Your task to perform on an android device: When is my next meeting? Image 0: 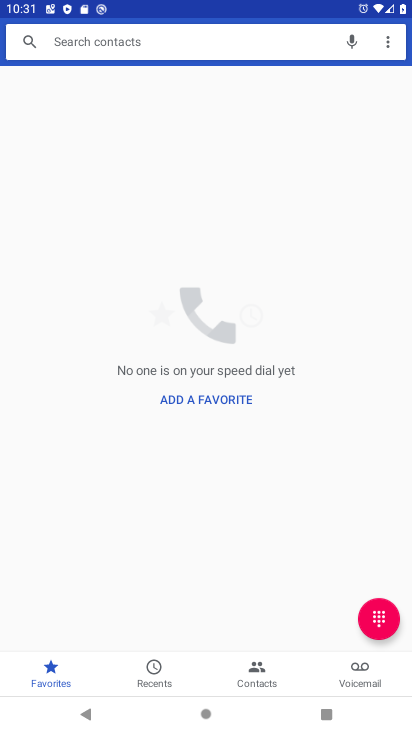
Step 0: press home button
Your task to perform on an android device: When is my next meeting? Image 1: 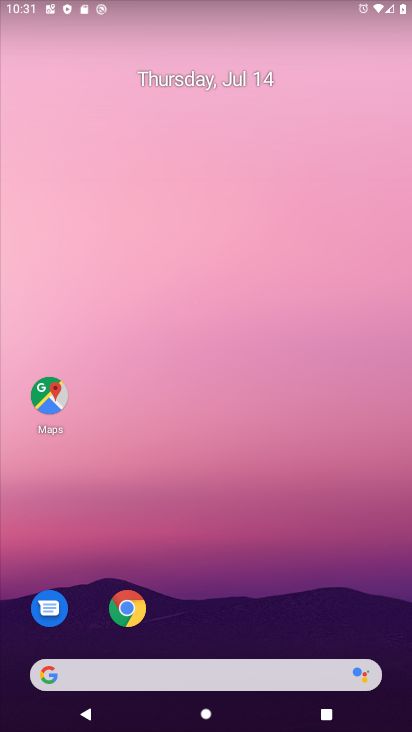
Step 1: drag from (227, 713) to (231, 214)
Your task to perform on an android device: When is my next meeting? Image 2: 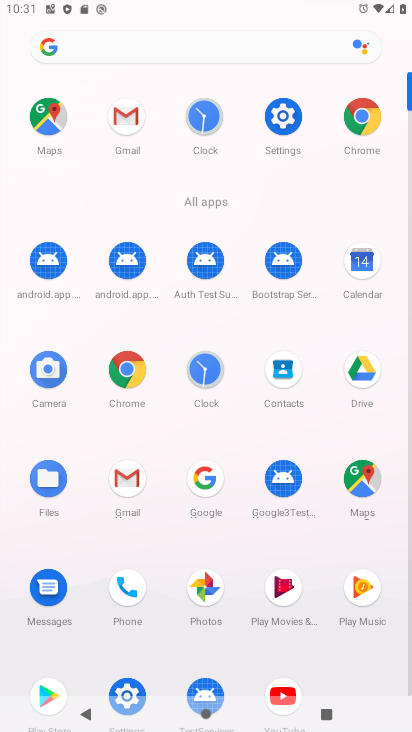
Step 2: click (367, 261)
Your task to perform on an android device: When is my next meeting? Image 3: 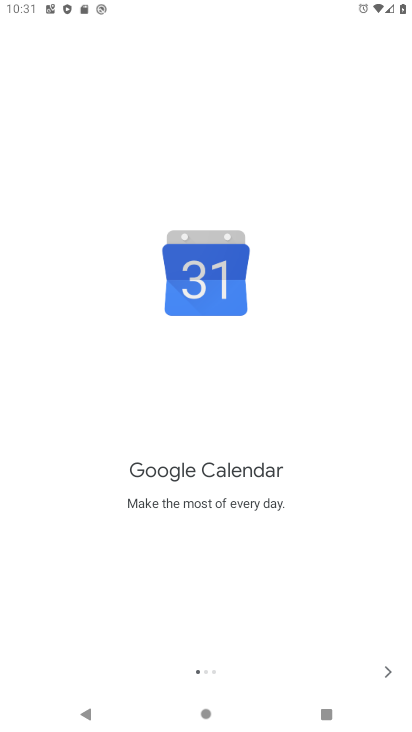
Step 3: click (386, 671)
Your task to perform on an android device: When is my next meeting? Image 4: 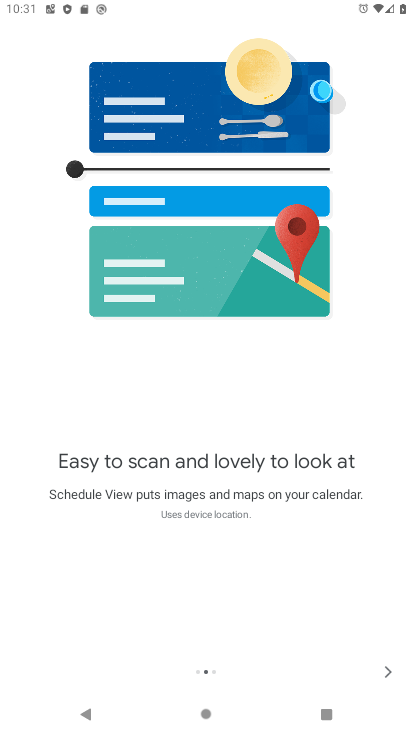
Step 4: click (386, 671)
Your task to perform on an android device: When is my next meeting? Image 5: 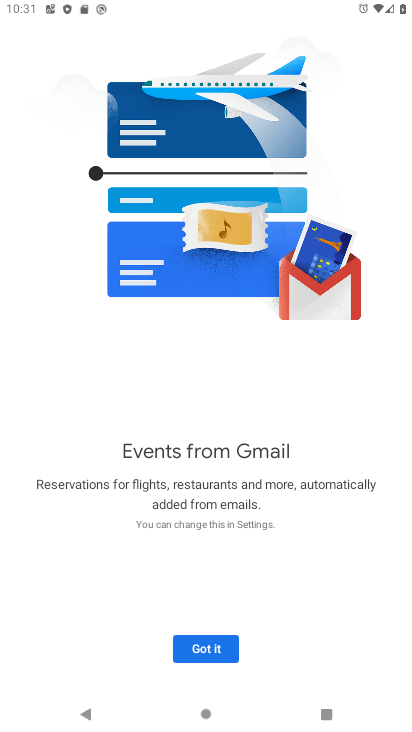
Step 5: click (210, 646)
Your task to perform on an android device: When is my next meeting? Image 6: 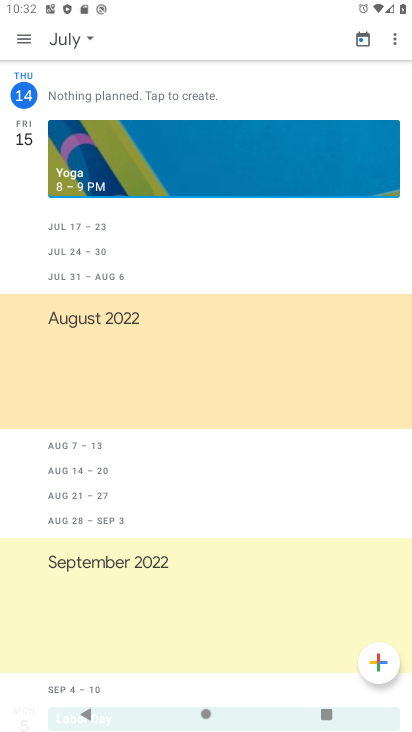
Step 6: click (90, 32)
Your task to perform on an android device: When is my next meeting? Image 7: 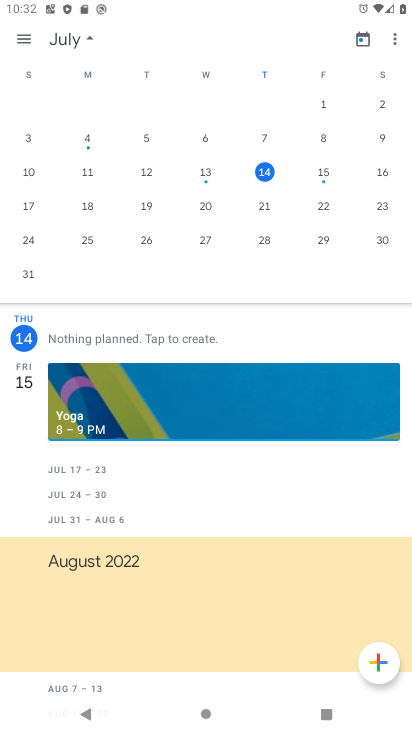
Step 7: click (317, 172)
Your task to perform on an android device: When is my next meeting? Image 8: 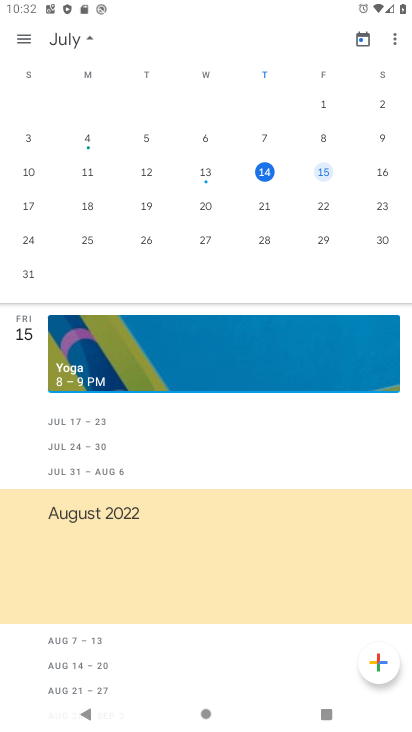
Step 8: task complete